Your task to perform on an android device: make emails show in primary in the gmail app Image 0: 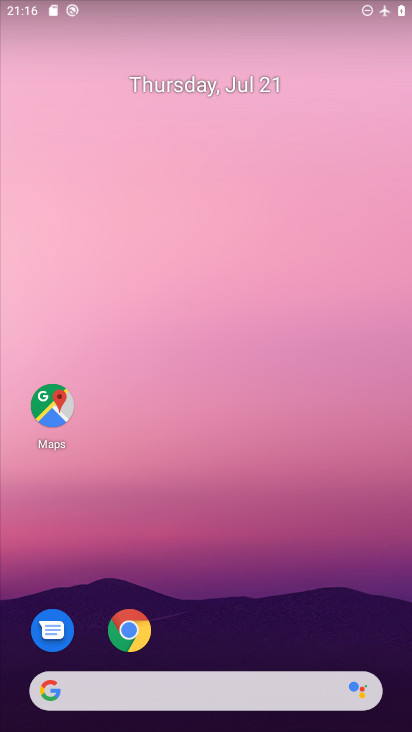
Step 0: drag from (256, 626) to (233, 20)
Your task to perform on an android device: make emails show in primary in the gmail app Image 1: 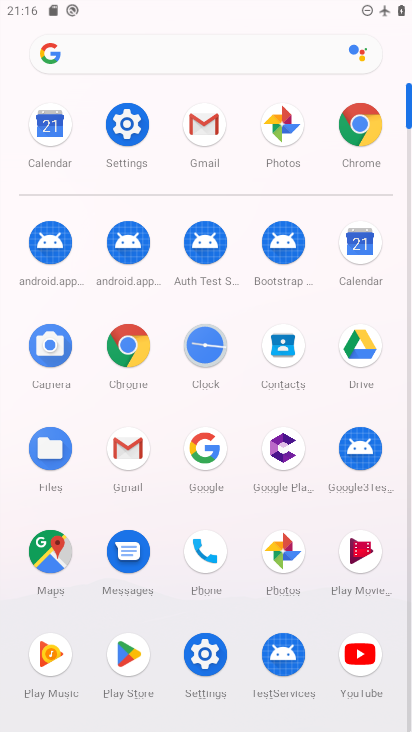
Step 1: click (220, 135)
Your task to perform on an android device: make emails show in primary in the gmail app Image 2: 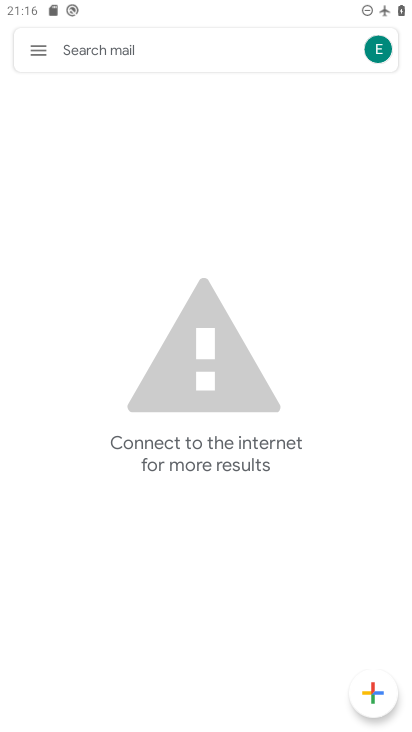
Step 2: click (41, 50)
Your task to perform on an android device: make emails show in primary in the gmail app Image 3: 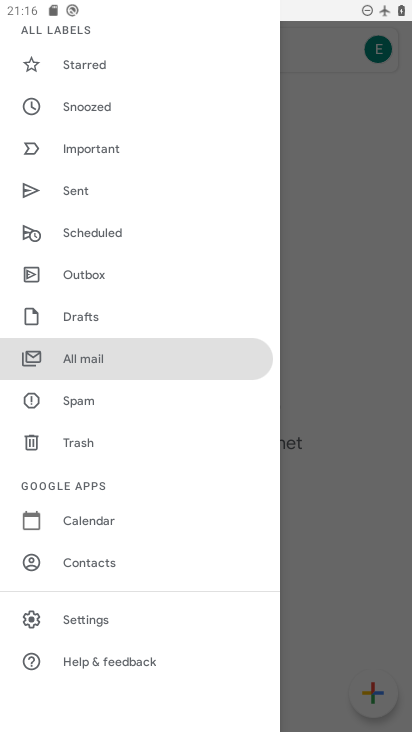
Step 3: click (107, 616)
Your task to perform on an android device: make emails show in primary in the gmail app Image 4: 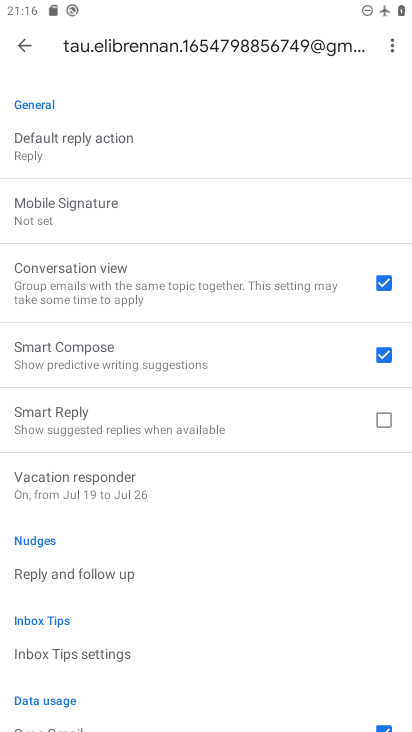
Step 4: drag from (196, 128) to (267, 567)
Your task to perform on an android device: make emails show in primary in the gmail app Image 5: 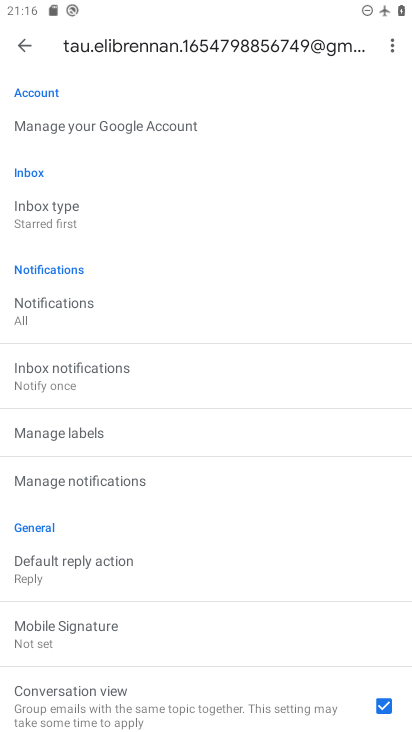
Step 5: drag from (180, 166) to (205, 542)
Your task to perform on an android device: make emails show in primary in the gmail app Image 6: 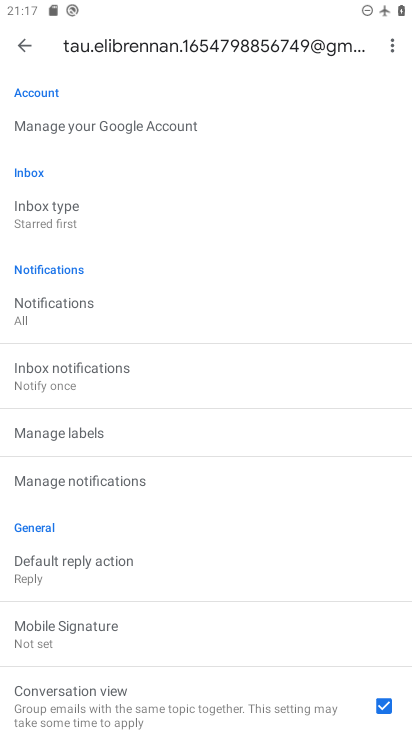
Step 6: click (59, 212)
Your task to perform on an android device: make emails show in primary in the gmail app Image 7: 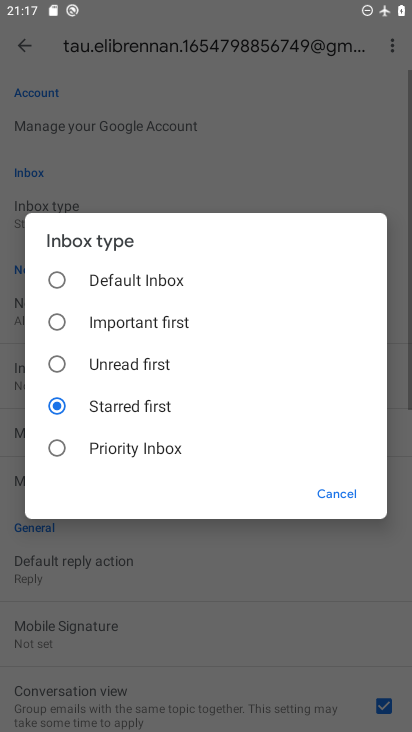
Step 7: click (130, 287)
Your task to perform on an android device: make emails show in primary in the gmail app Image 8: 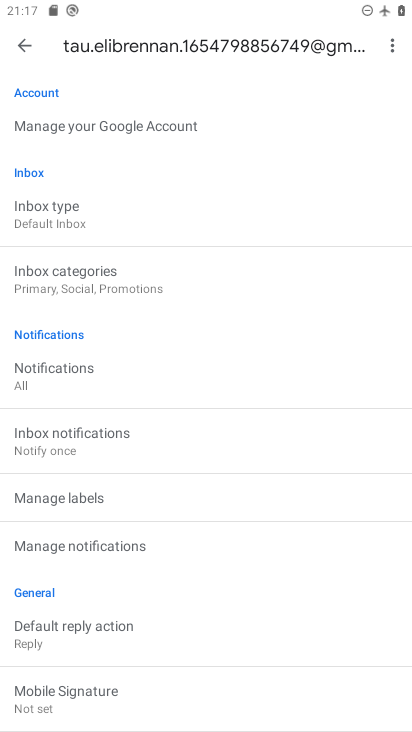
Step 8: click (89, 286)
Your task to perform on an android device: make emails show in primary in the gmail app Image 9: 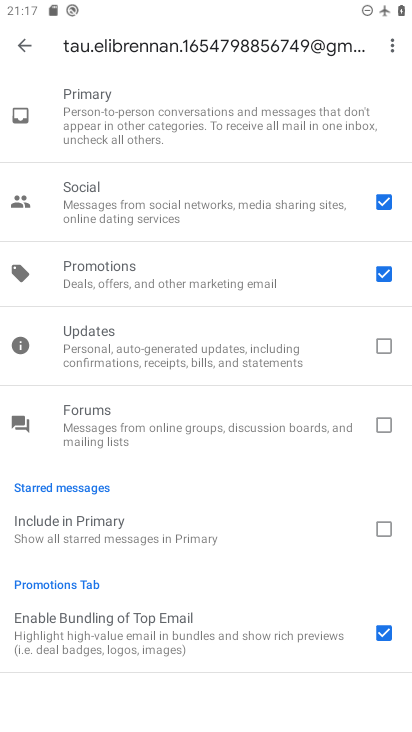
Step 9: task complete